Your task to perform on an android device: check out phone information Image 0: 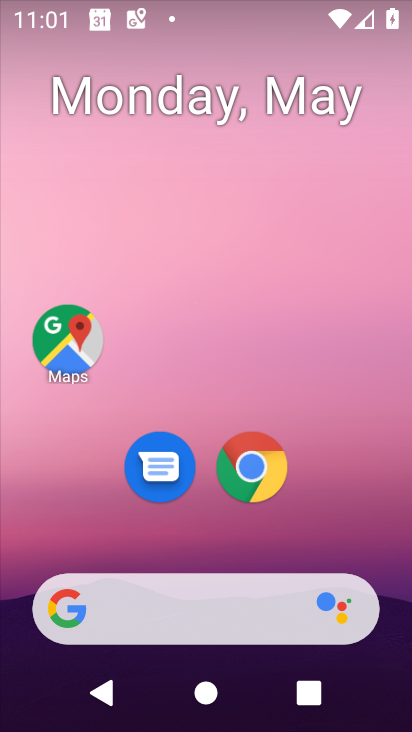
Step 0: drag from (402, 545) to (113, 23)
Your task to perform on an android device: check out phone information Image 1: 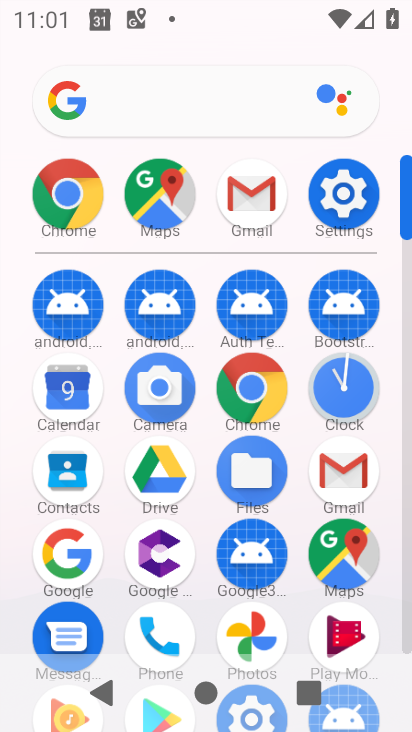
Step 1: drag from (98, 72) to (144, 91)
Your task to perform on an android device: check out phone information Image 2: 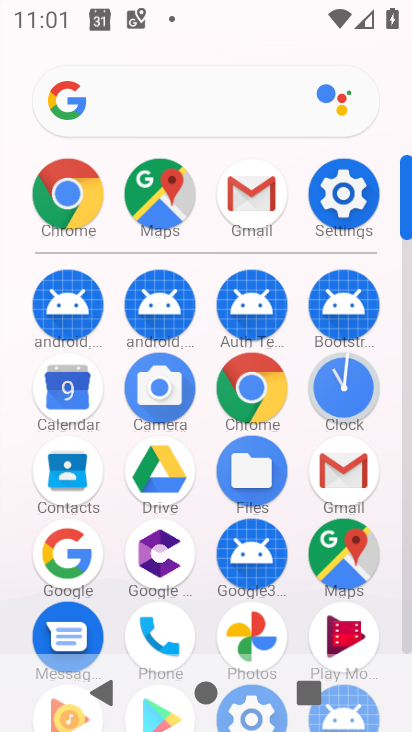
Step 2: click (347, 176)
Your task to perform on an android device: check out phone information Image 3: 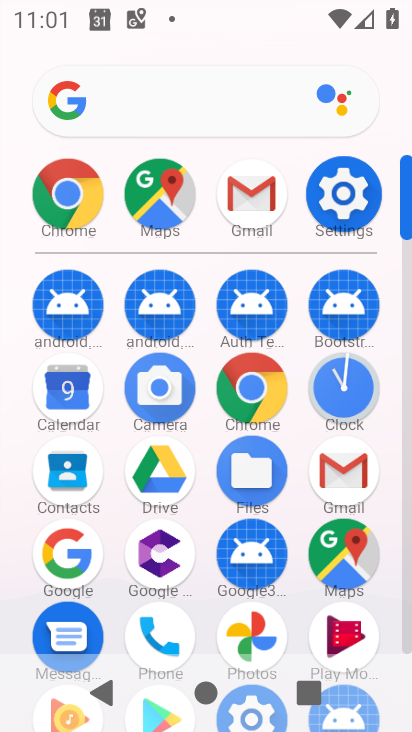
Step 3: click (347, 193)
Your task to perform on an android device: check out phone information Image 4: 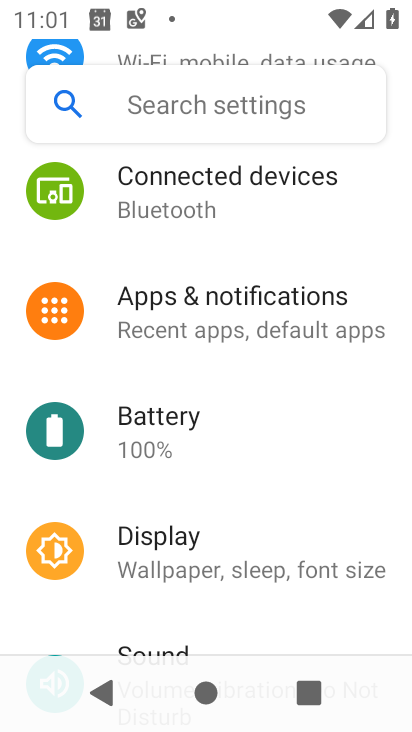
Step 4: drag from (213, 476) to (158, 154)
Your task to perform on an android device: check out phone information Image 5: 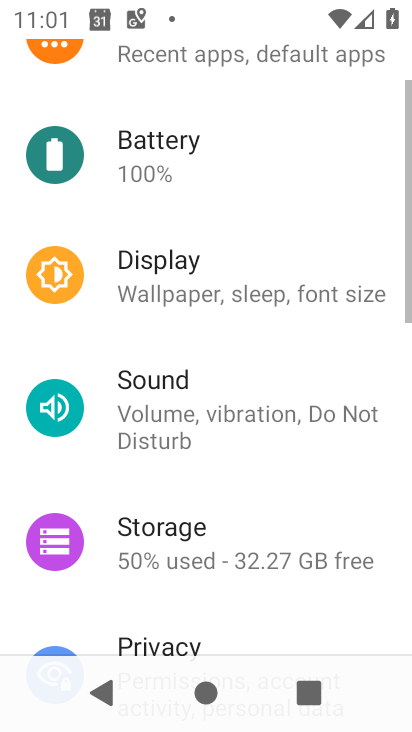
Step 5: drag from (185, 351) to (184, 144)
Your task to perform on an android device: check out phone information Image 6: 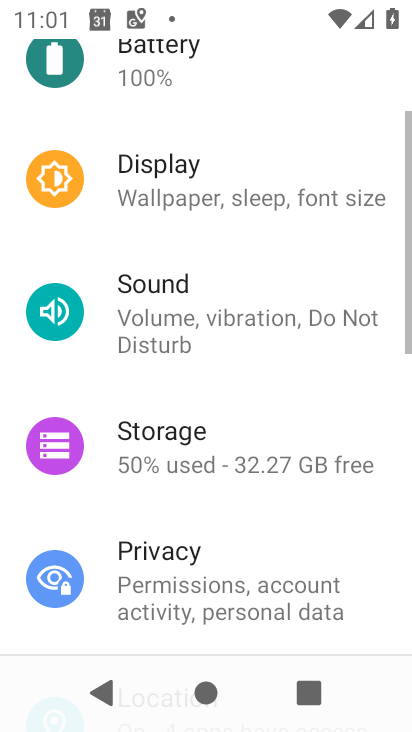
Step 6: drag from (242, 459) to (228, 109)
Your task to perform on an android device: check out phone information Image 7: 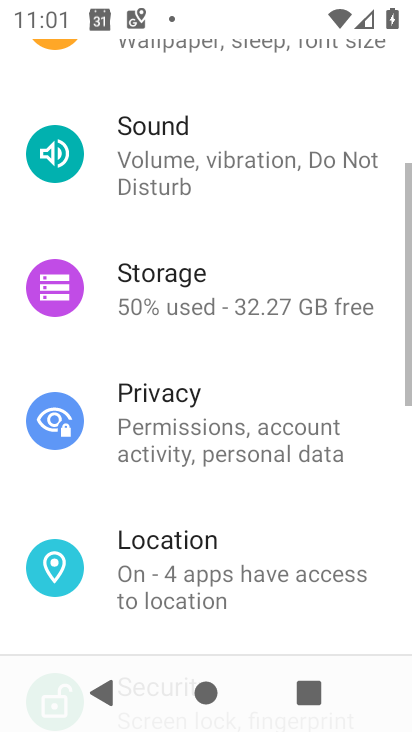
Step 7: click (197, 71)
Your task to perform on an android device: check out phone information Image 8: 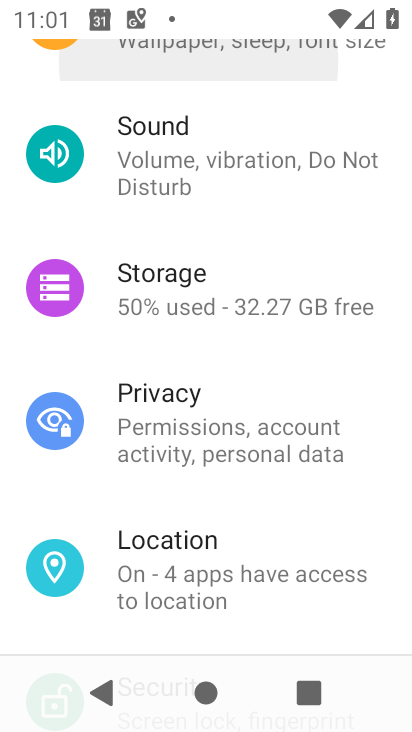
Step 8: drag from (209, 531) to (207, 216)
Your task to perform on an android device: check out phone information Image 9: 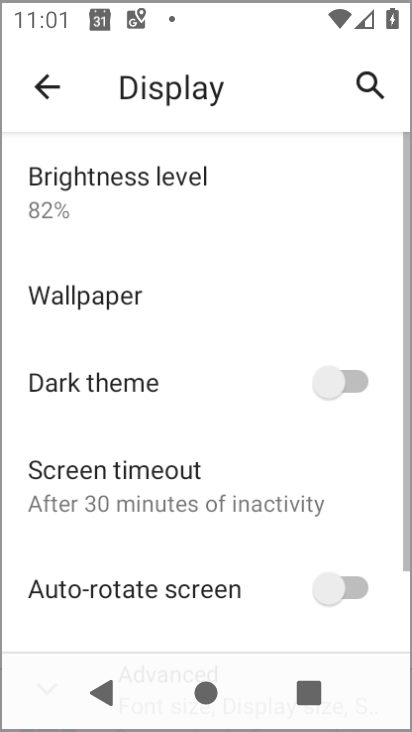
Step 9: drag from (254, 495) to (217, 99)
Your task to perform on an android device: check out phone information Image 10: 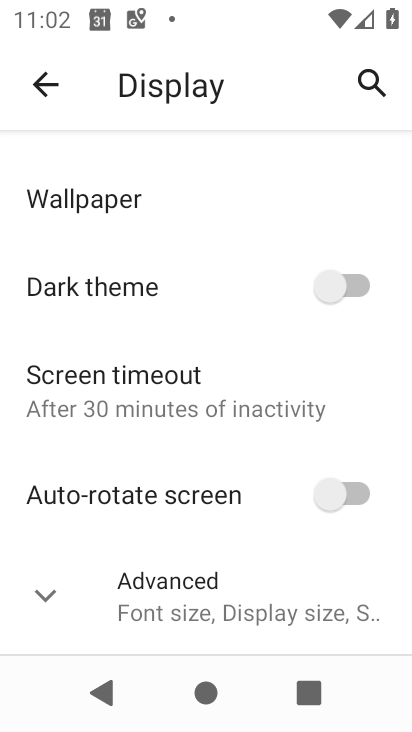
Step 10: click (39, 88)
Your task to perform on an android device: check out phone information Image 11: 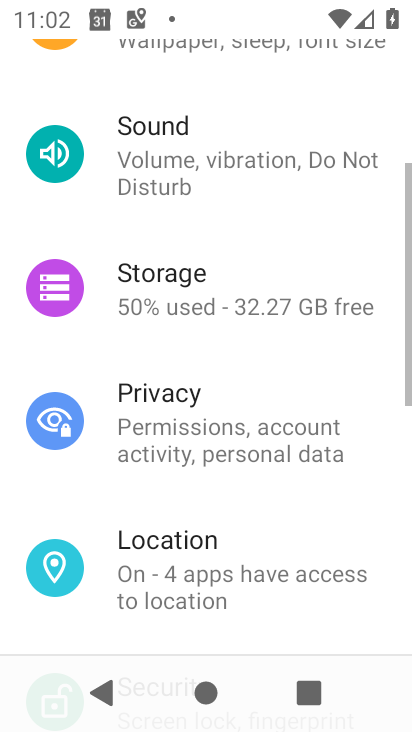
Step 11: drag from (173, 573) to (205, 258)
Your task to perform on an android device: check out phone information Image 12: 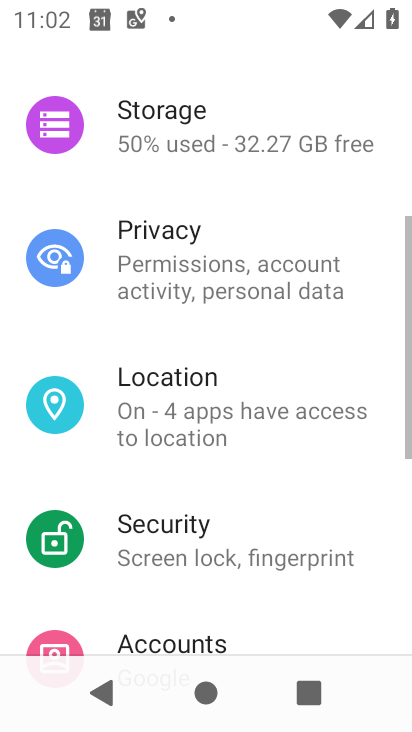
Step 12: drag from (206, 497) to (174, 228)
Your task to perform on an android device: check out phone information Image 13: 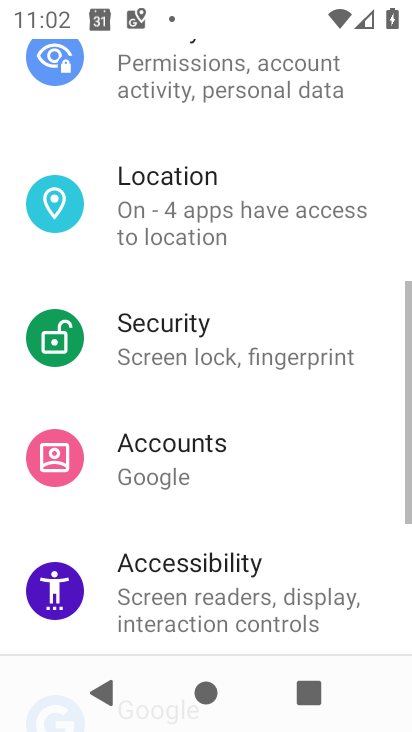
Step 13: drag from (216, 431) to (179, 135)
Your task to perform on an android device: check out phone information Image 14: 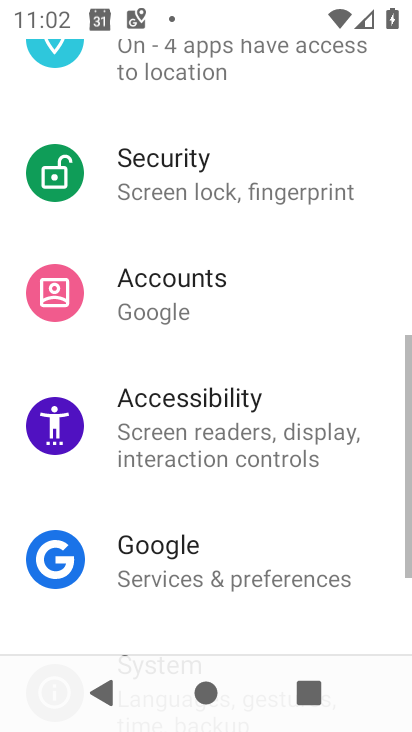
Step 14: drag from (229, 253) to (212, 116)
Your task to perform on an android device: check out phone information Image 15: 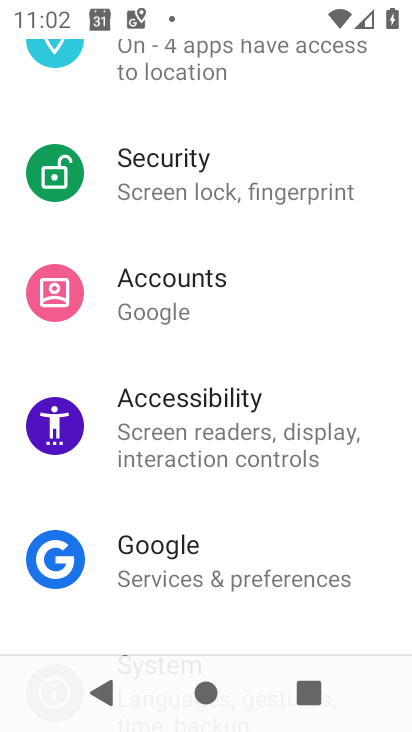
Step 15: drag from (267, 506) to (244, 159)
Your task to perform on an android device: check out phone information Image 16: 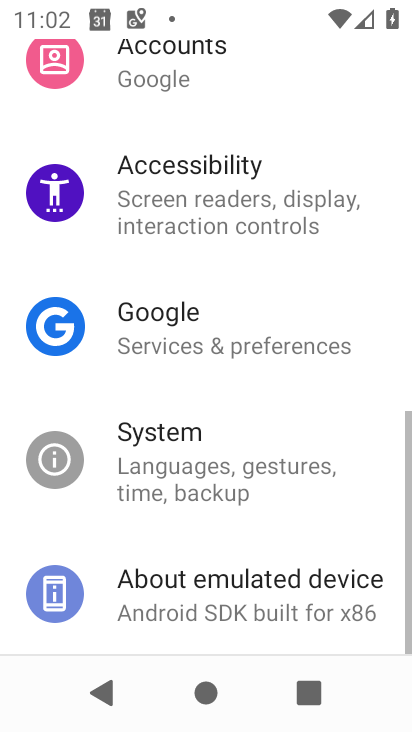
Step 16: drag from (247, 484) to (241, 125)
Your task to perform on an android device: check out phone information Image 17: 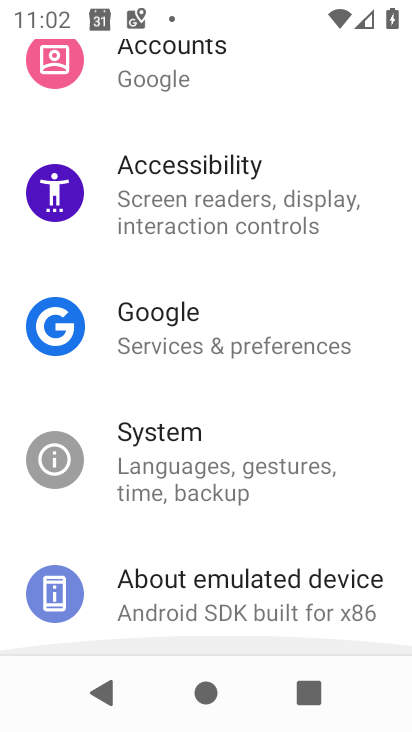
Step 17: drag from (264, 469) to (302, 144)
Your task to perform on an android device: check out phone information Image 18: 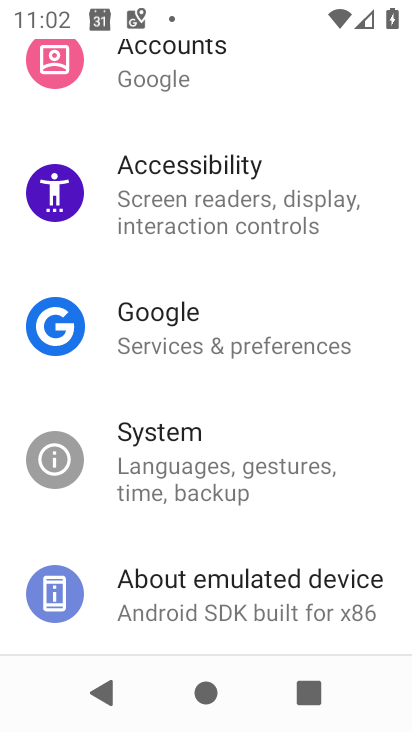
Step 18: click (159, 608)
Your task to perform on an android device: check out phone information Image 19: 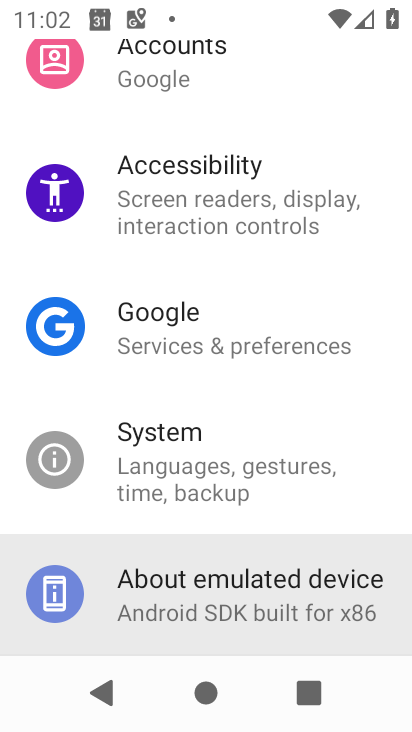
Step 19: click (160, 607)
Your task to perform on an android device: check out phone information Image 20: 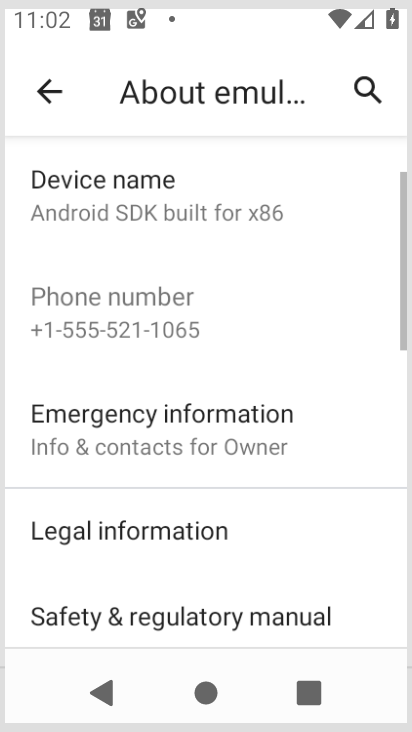
Step 20: click (160, 584)
Your task to perform on an android device: check out phone information Image 21: 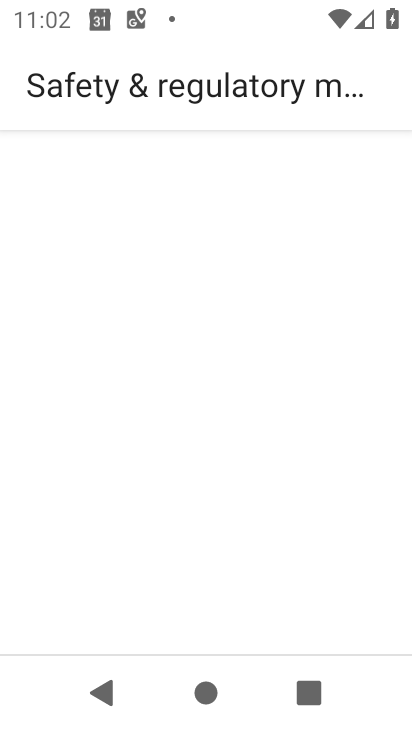
Step 21: press back button
Your task to perform on an android device: check out phone information Image 22: 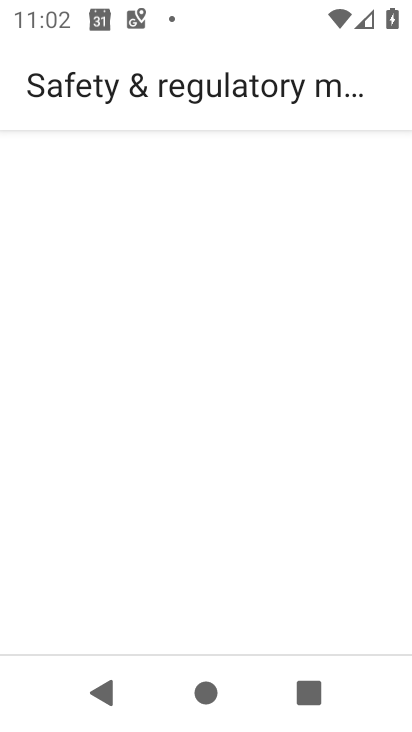
Step 22: press back button
Your task to perform on an android device: check out phone information Image 23: 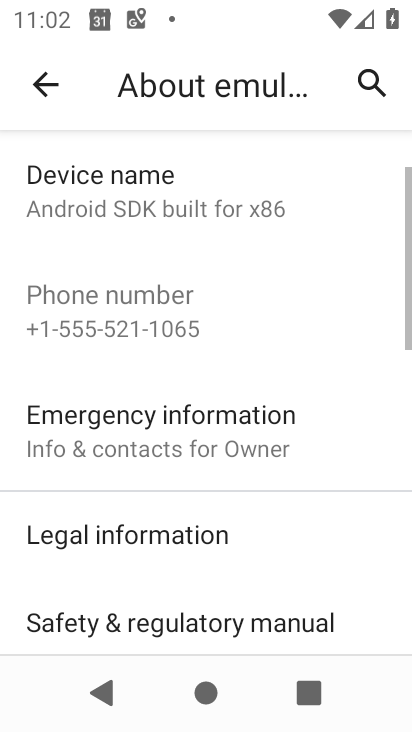
Step 23: press back button
Your task to perform on an android device: check out phone information Image 24: 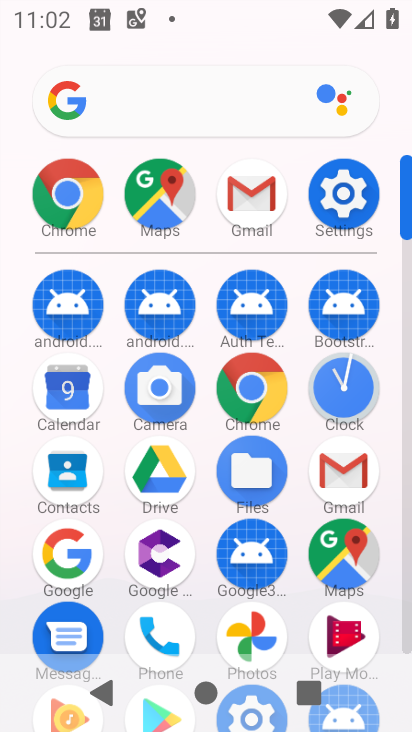
Step 24: drag from (172, 154) to (220, 527)
Your task to perform on an android device: check out phone information Image 25: 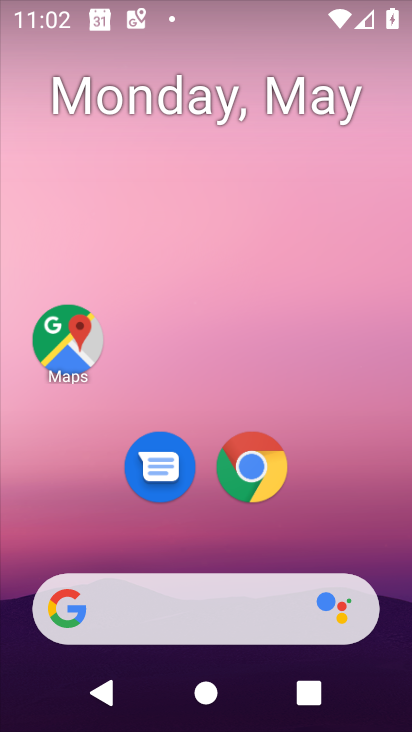
Step 25: drag from (368, 559) to (92, 70)
Your task to perform on an android device: check out phone information Image 26: 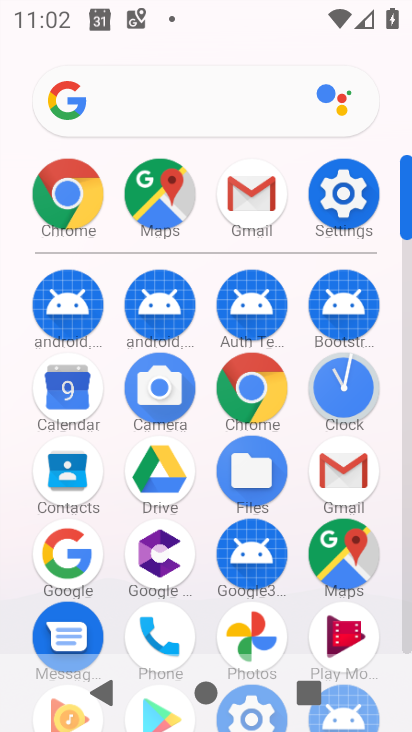
Step 26: click (335, 192)
Your task to perform on an android device: check out phone information Image 27: 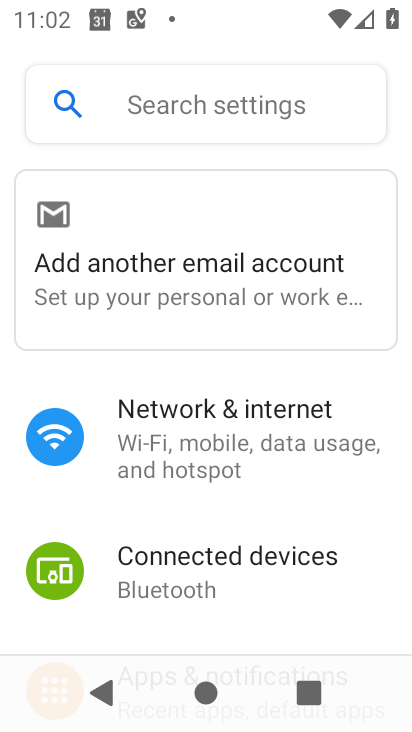
Step 27: drag from (197, 504) to (164, 198)
Your task to perform on an android device: check out phone information Image 28: 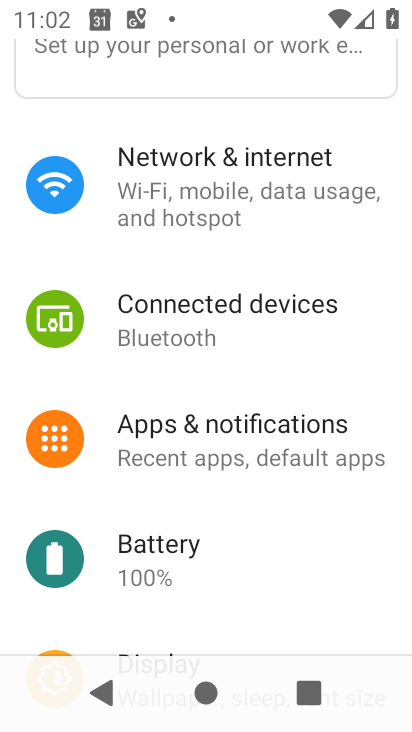
Step 28: drag from (204, 408) to (155, 72)
Your task to perform on an android device: check out phone information Image 29: 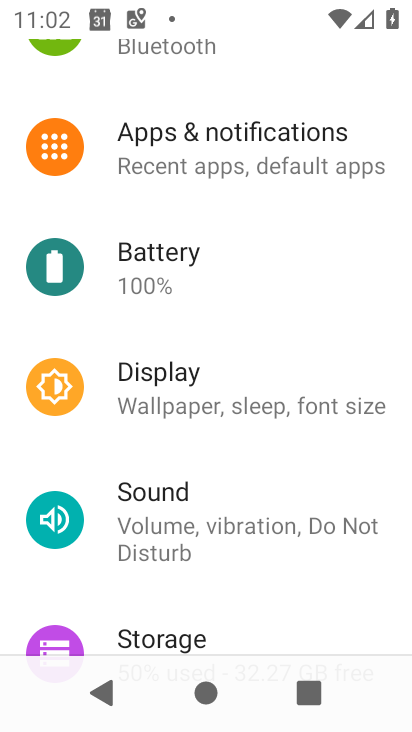
Step 29: drag from (179, 485) to (123, 97)
Your task to perform on an android device: check out phone information Image 30: 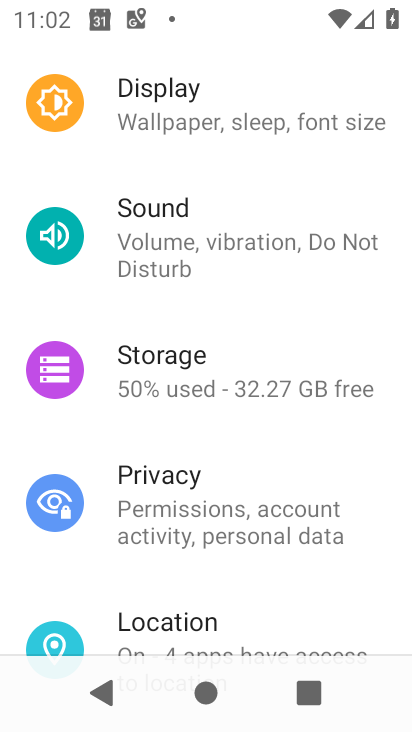
Step 30: drag from (218, 478) to (150, 77)
Your task to perform on an android device: check out phone information Image 31: 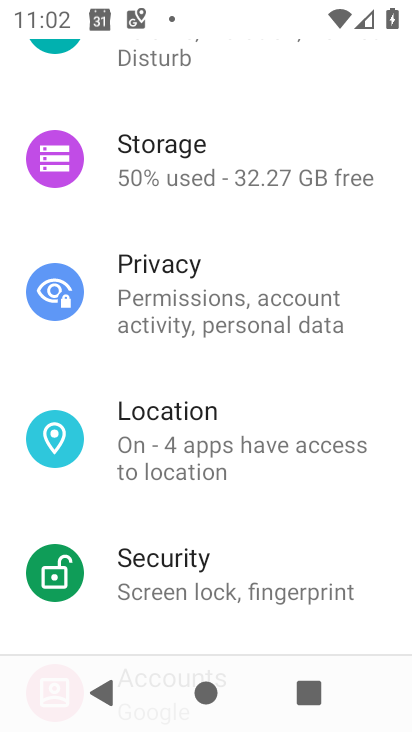
Step 31: click (174, 426)
Your task to perform on an android device: check out phone information Image 32: 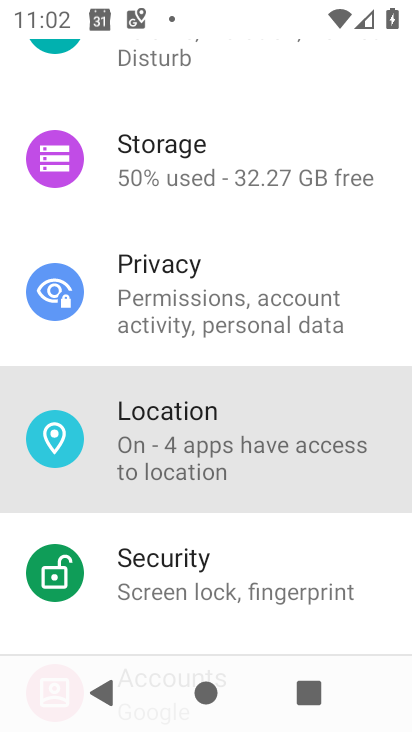
Step 32: click (177, 429)
Your task to perform on an android device: check out phone information Image 33: 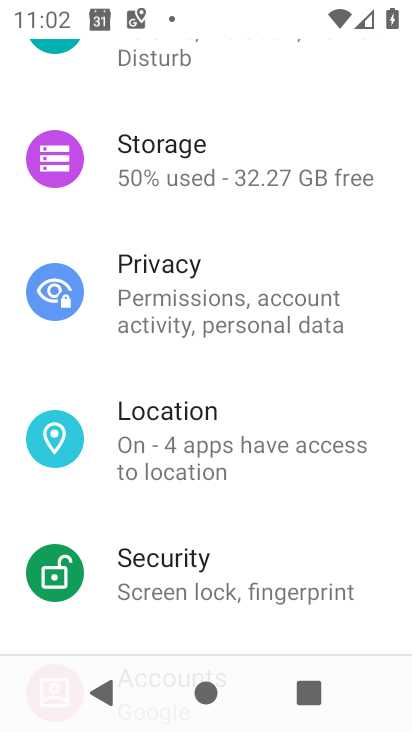
Step 33: click (178, 429)
Your task to perform on an android device: check out phone information Image 34: 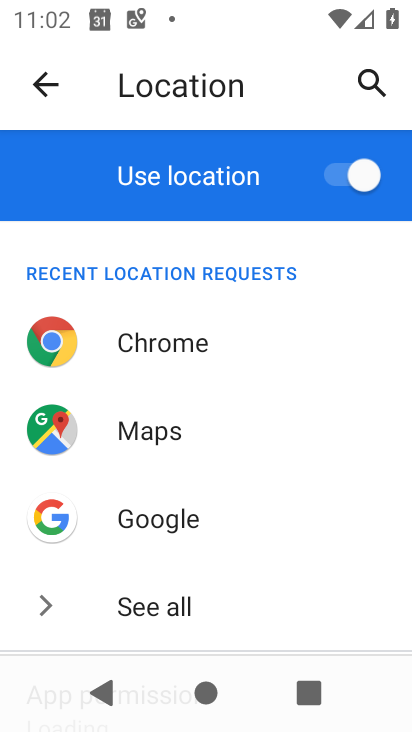
Step 34: drag from (236, 526) to (236, 105)
Your task to perform on an android device: check out phone information Image 35: 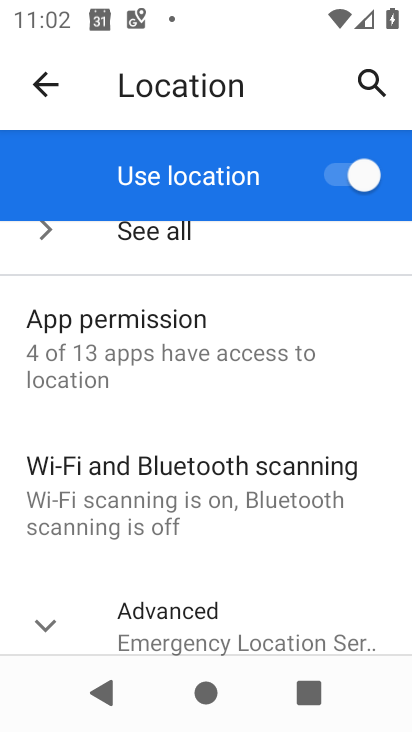
Step 35: click (111, 346)
Your task to perform on an android device: check out phone information Image 36: 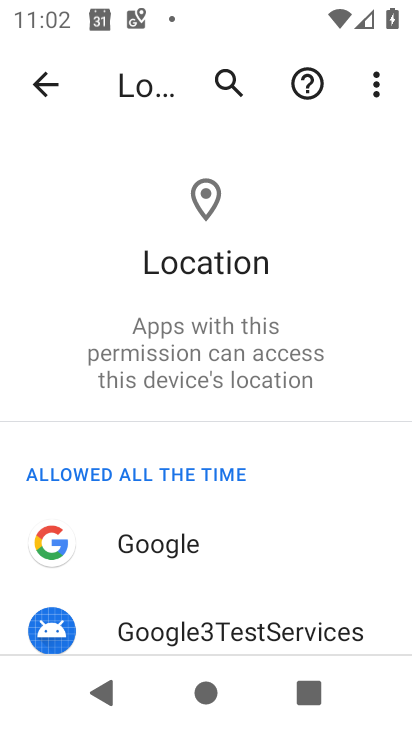
Step 36: task complete